Your task to perform on an android device: turn notification dots off Image 0: 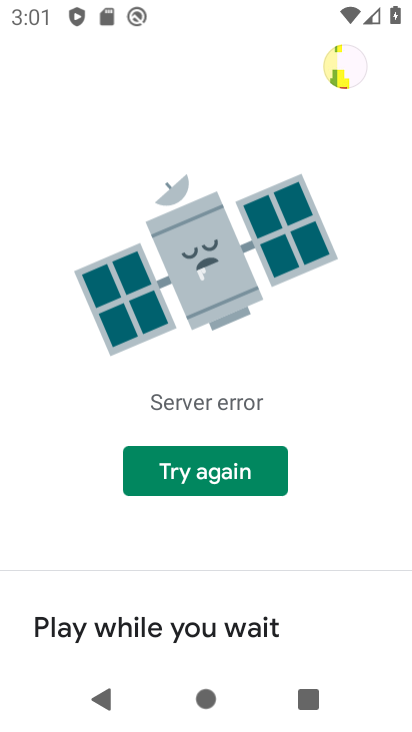
Step 0: press home button
Your task to perform on an android device: turn notification dots off Image 1: 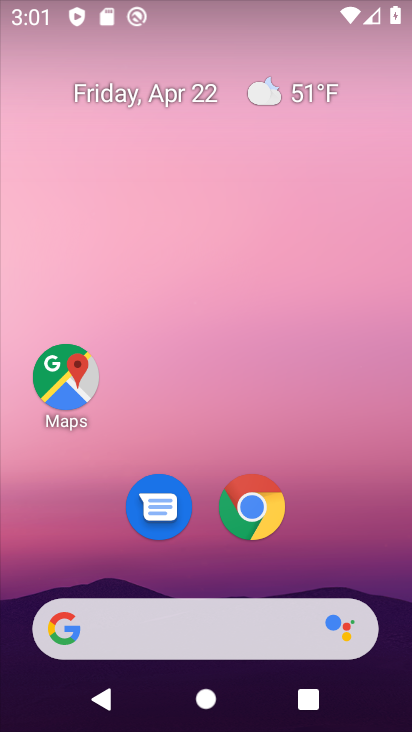
Step 1: drag from (228, 583) to (267, 0)
Your task to perform on an android device: turn notification dots off Image 2: 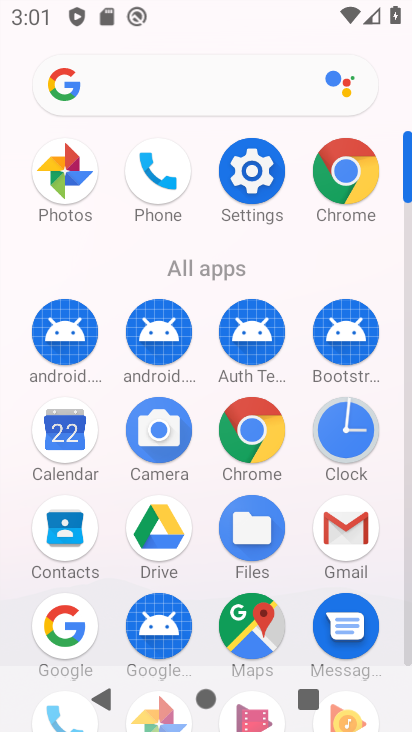
Step 2: click (272, 174)
Your task to perform on an android device: turn notification dots off Image 3: 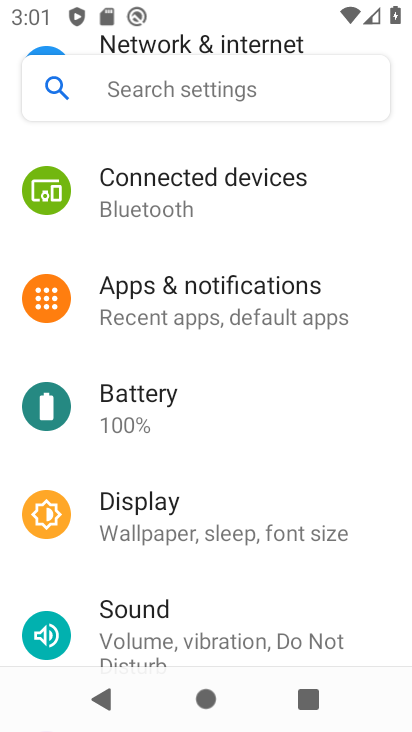
Step 3: click (179, 299)
Your task to perform on an android device: turn notification dots off Image 4: 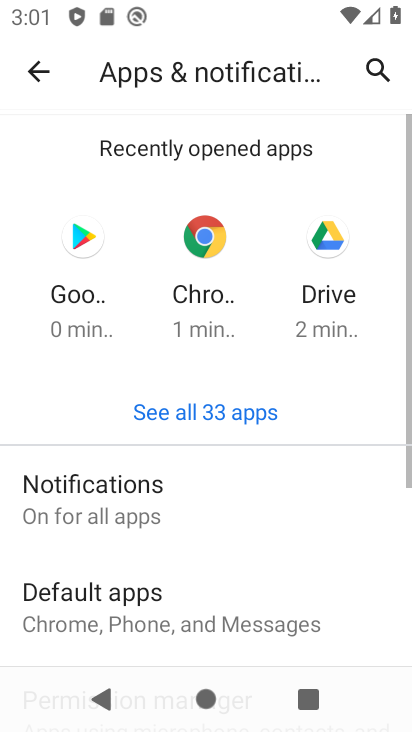
Step 4: click (171, 494)
Your task to perform on an android device: turn notification dots off Image 5: 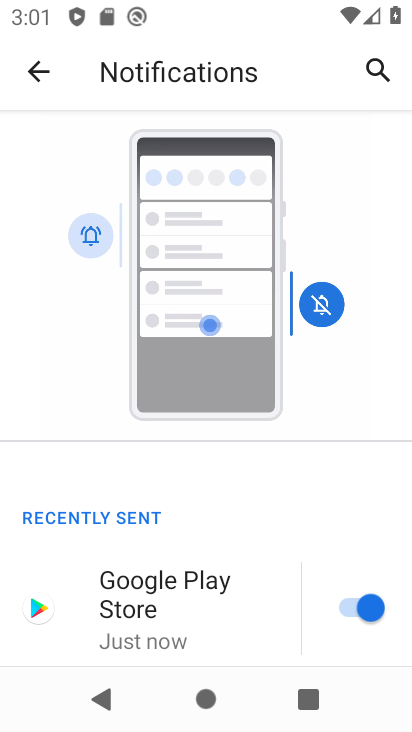
Step 5: drag from (217, 569) to (196, 71)
Your task to perform on an android device: turn notification dots off Image 6: 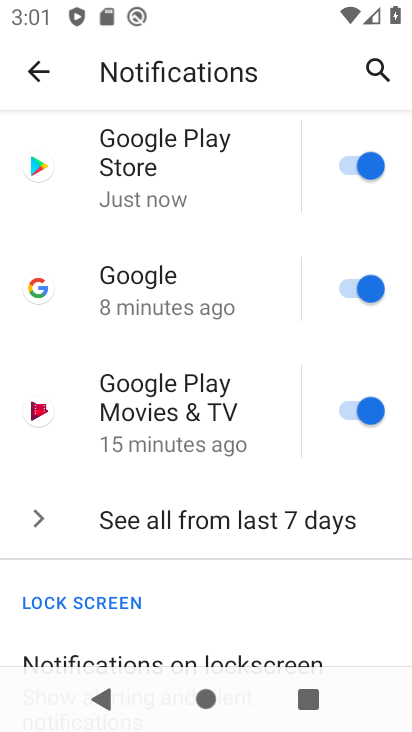
Step 6: drag from (239, 569) to (217, 35)
Your task to perform on an android device: turn notification dots off Image 7: 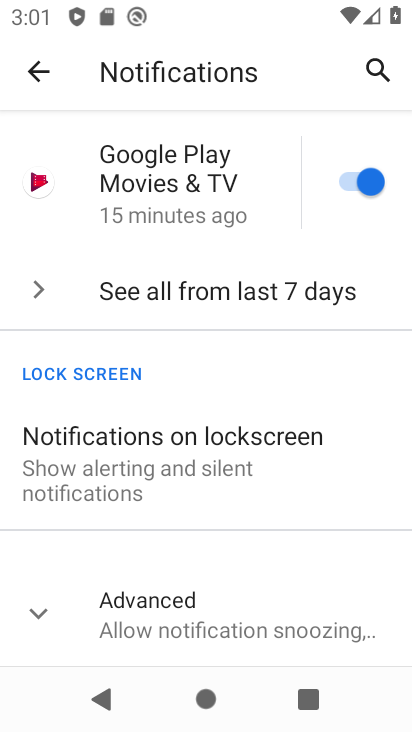
Step 7: click (141, 617)
Your task to perform on an android device: turn notification dots off Image 8: 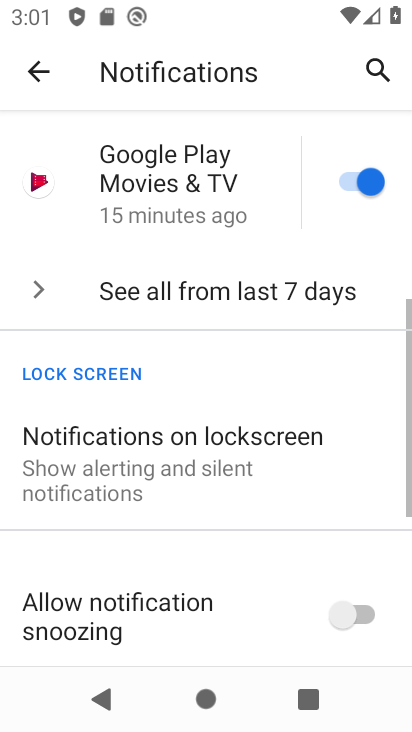
Step 8: drag from (186, 605) to (189, 96)
Your task to perform on an android device: turn notification dots off Image 9: 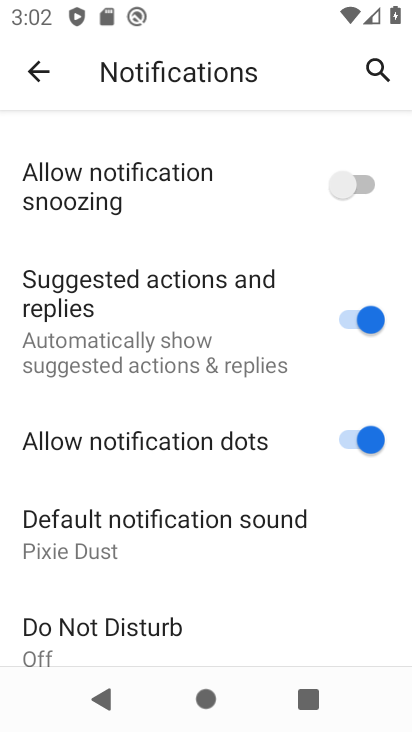
Step 9: click (338, 447)
Your task to perform on an android device: turn notification dots off Image 10: 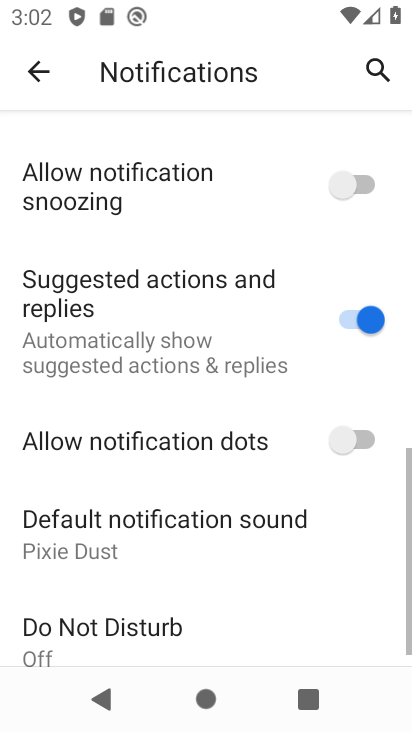
Step 10: task complete